Your task to perform on an android device: Go to Amazon Image 0: 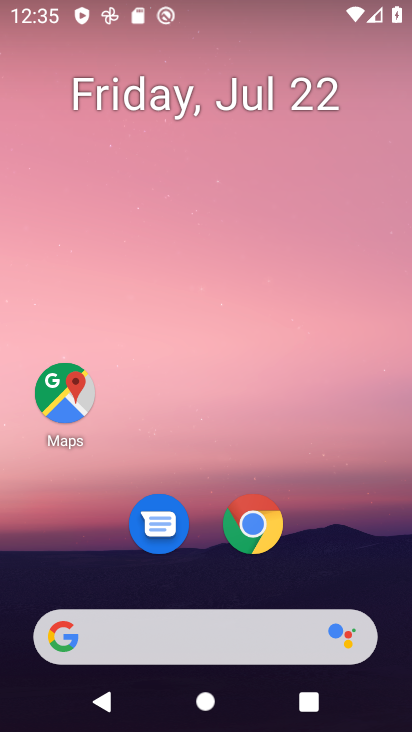
Step 0: click (240, 528)
Your task to perform on an android device: Go to Amazon Image 1: 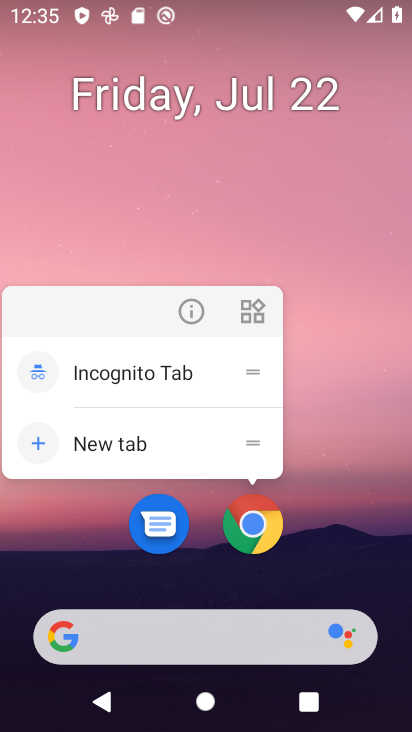
Step 1: click (247, 524)
Your task to perform on an android device: Go to Amazon Image 2: 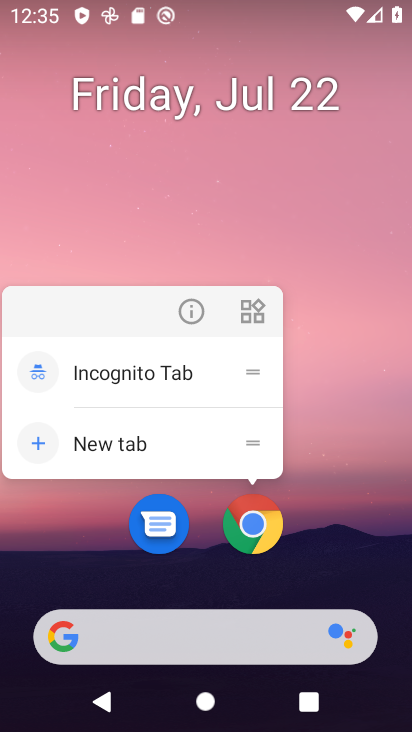
Step 2: click (252, 529)
Your task to perform on an android device: Go to Amazon Image 3: 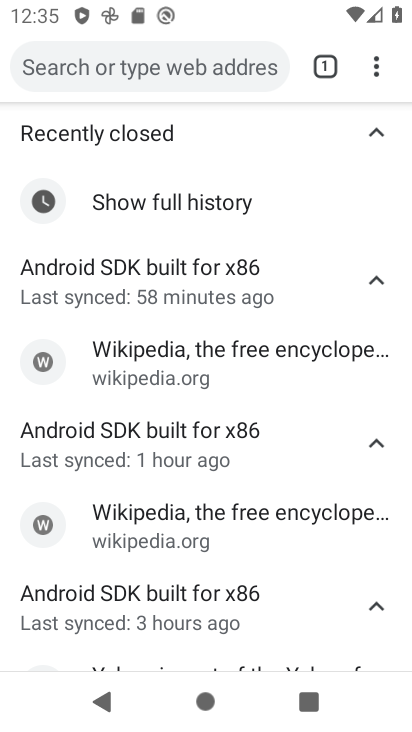
Step 3: drag from (367, 69) to (196, 135)
Your task to perform on an android device: Go to Amazon Image 4: 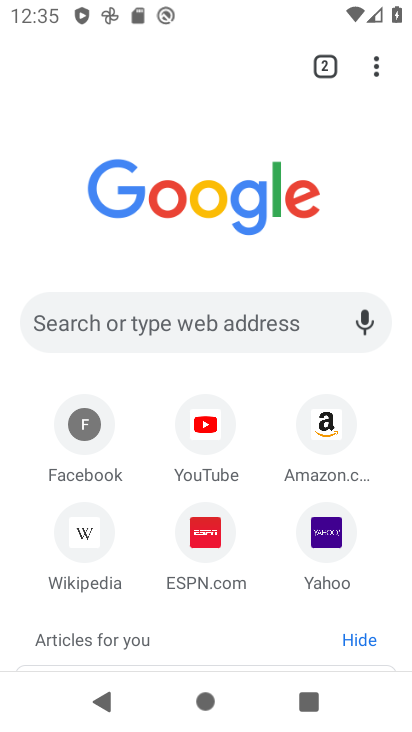
Step 4: click (316, 439)
Your task to perform on an android device: Go to Amazon Image 5: 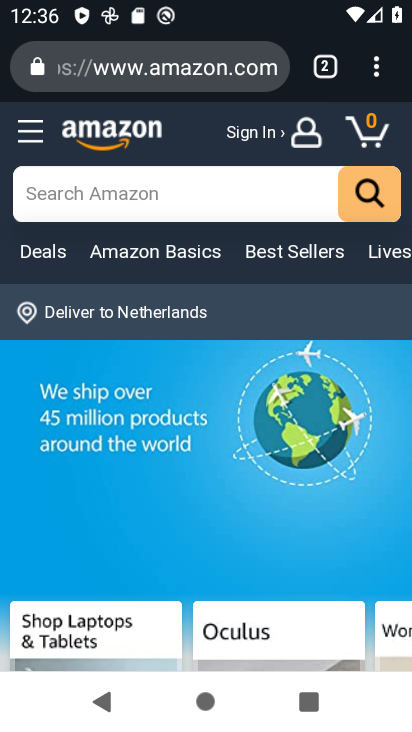
Step 5: task complete